Your task to perform on an android device: Go to privacy settings Image 0: 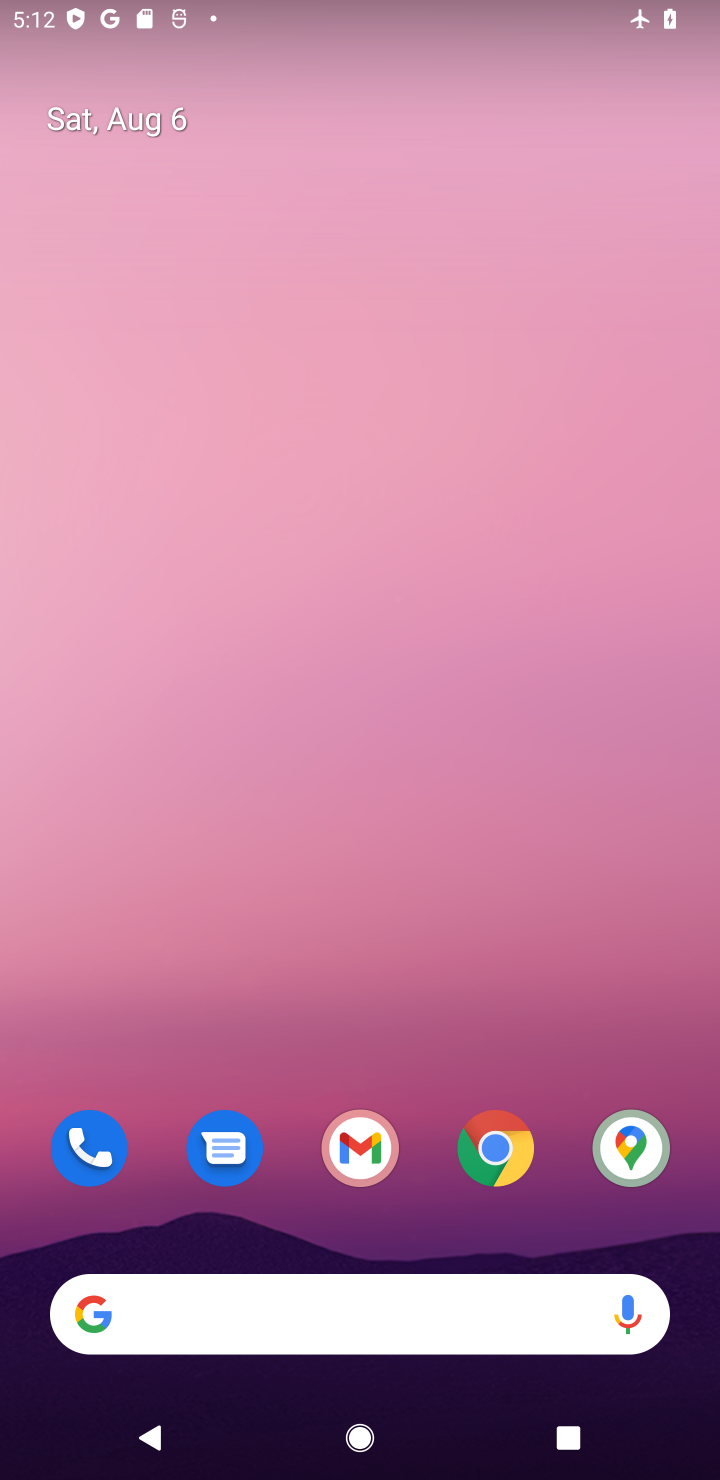
Step 0: drag from (473, 1287) to (688, 590)
Your task to perform on an android device: Go to privacy settings Image 1: 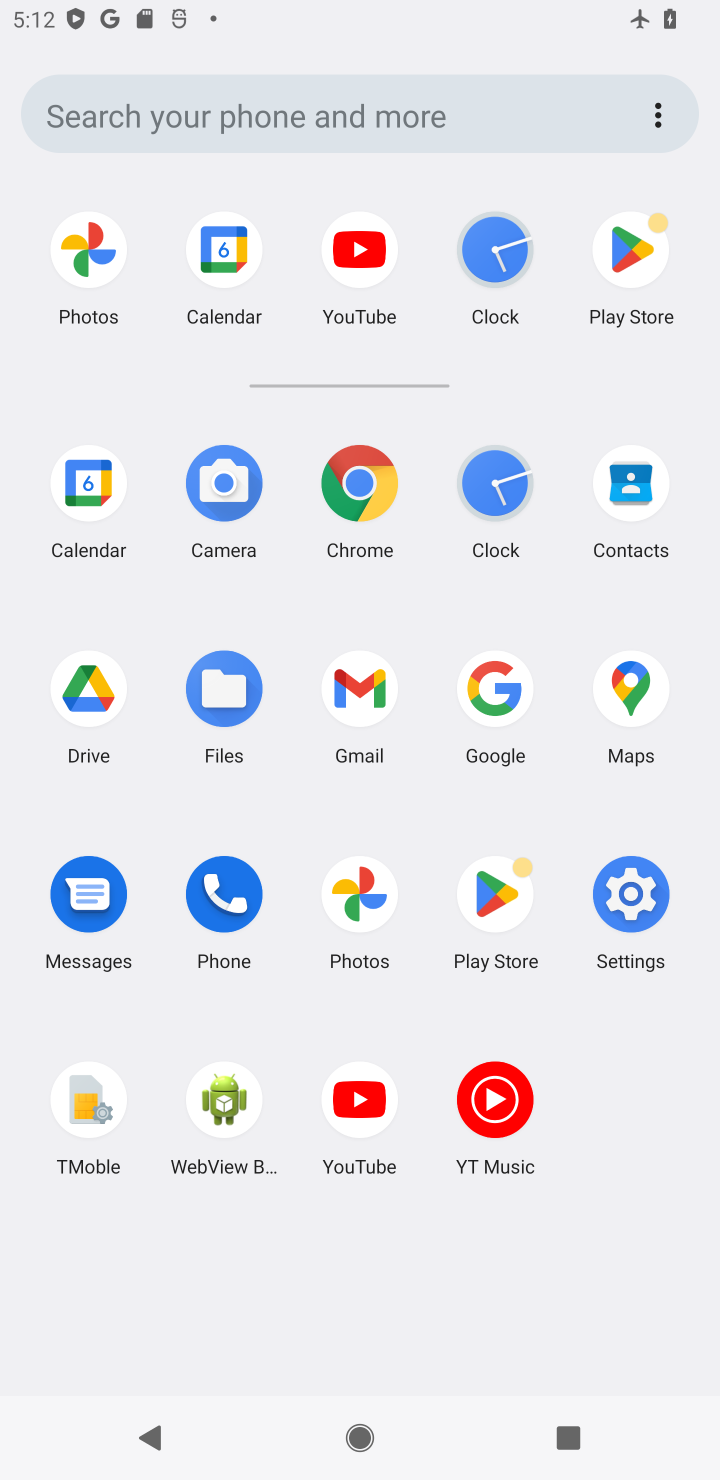
Step 1: click (663, 895)
Your task to perform on an android device: Go to privacy settings Image 2: 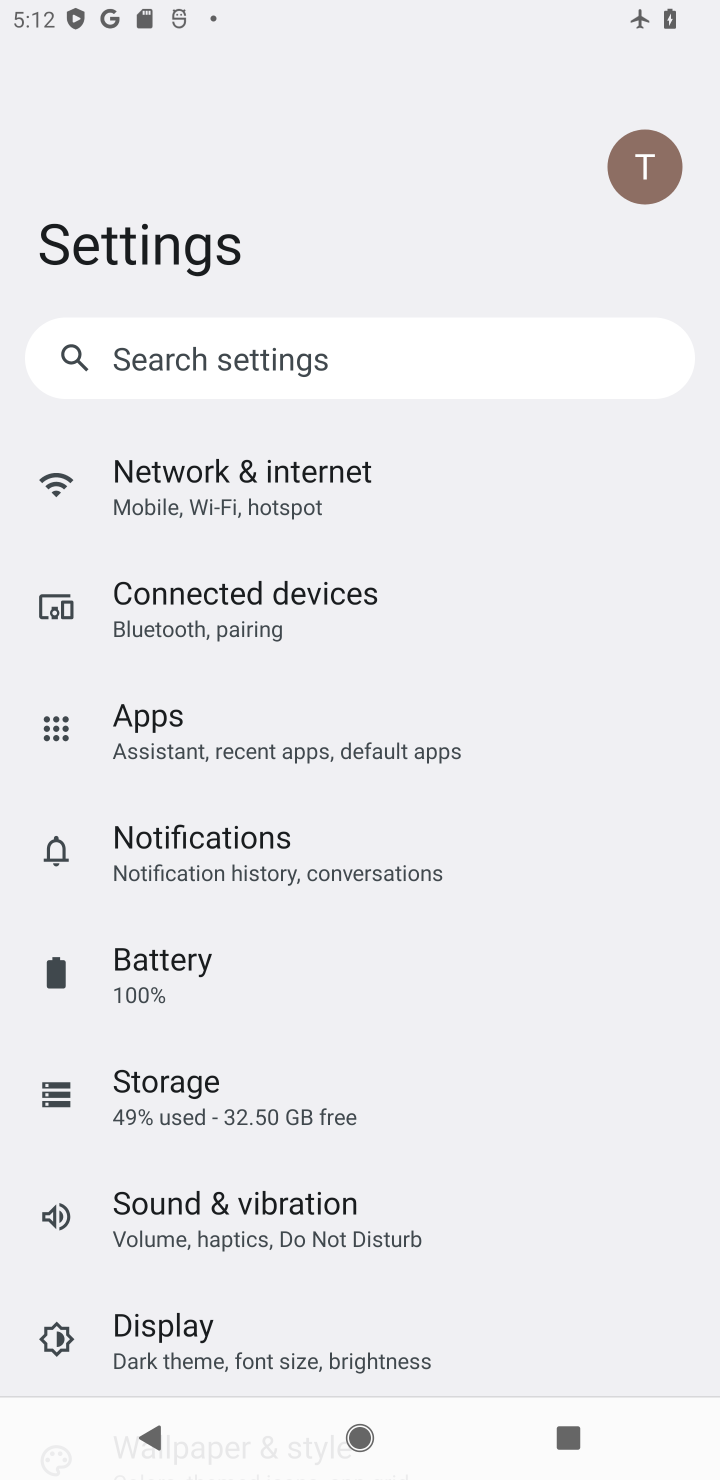
Step 2: drag from (269, 1142) to (229, 303)
Your task to perform on an android device: Go to privacy settings Image 3: 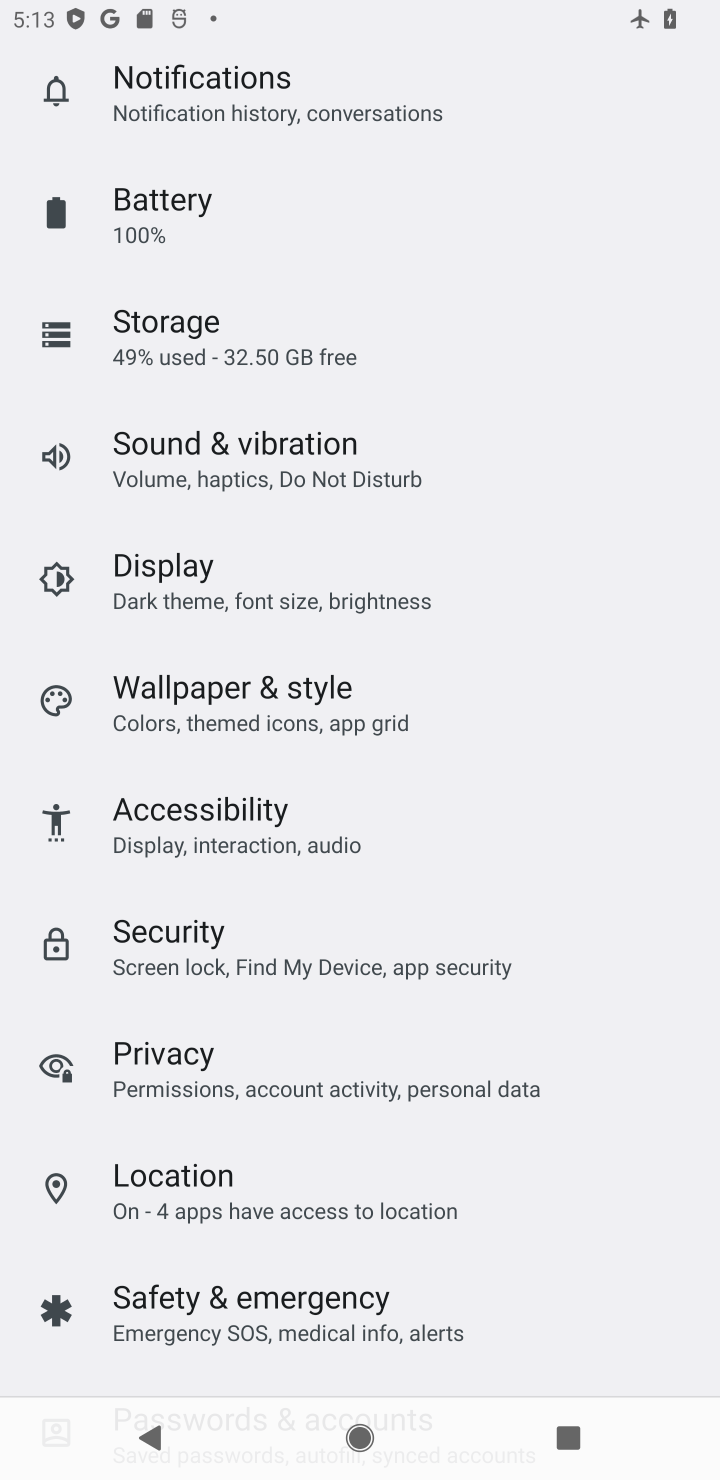
Step 3: click (163, 1060)
Your task to perform on an android device: Go to privacy settings Image 4: 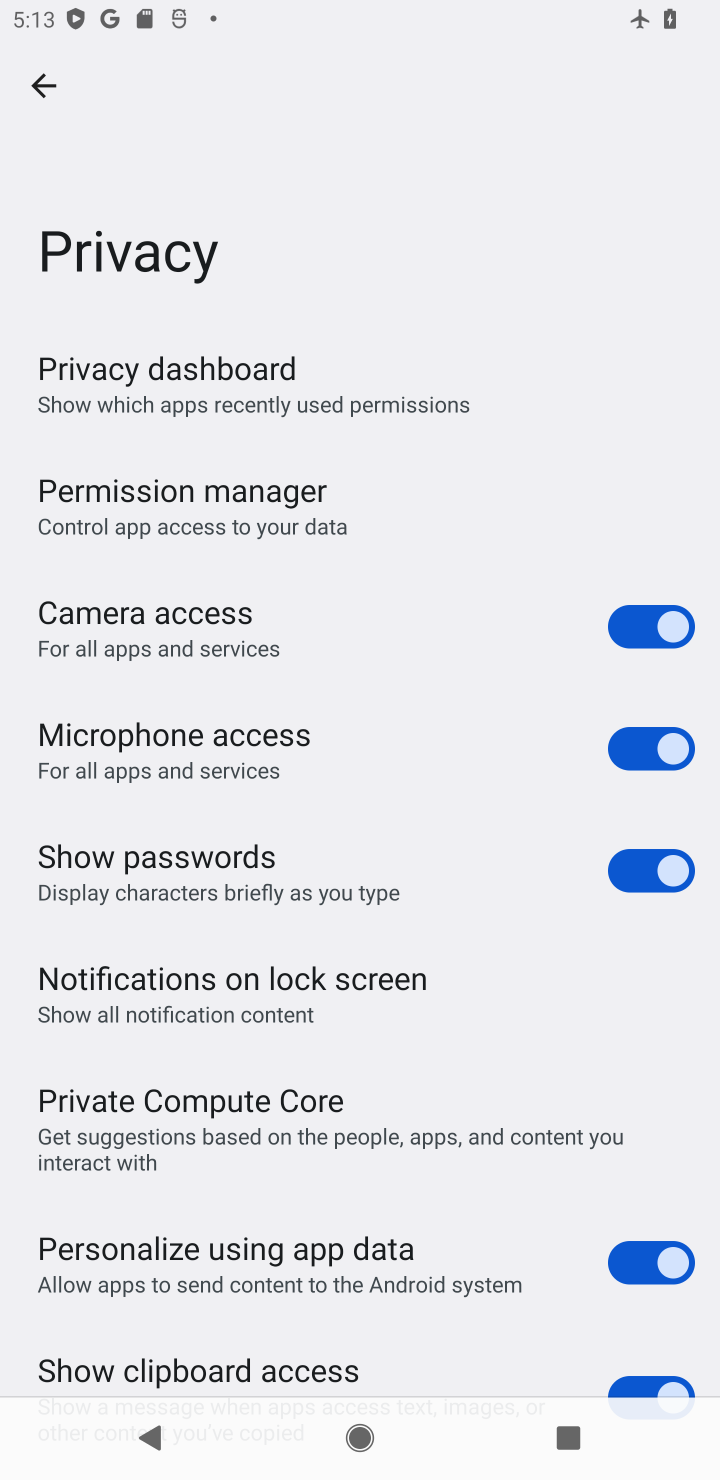
Step 4: task complete